Your task to perform on an android device: check android version Image 0: 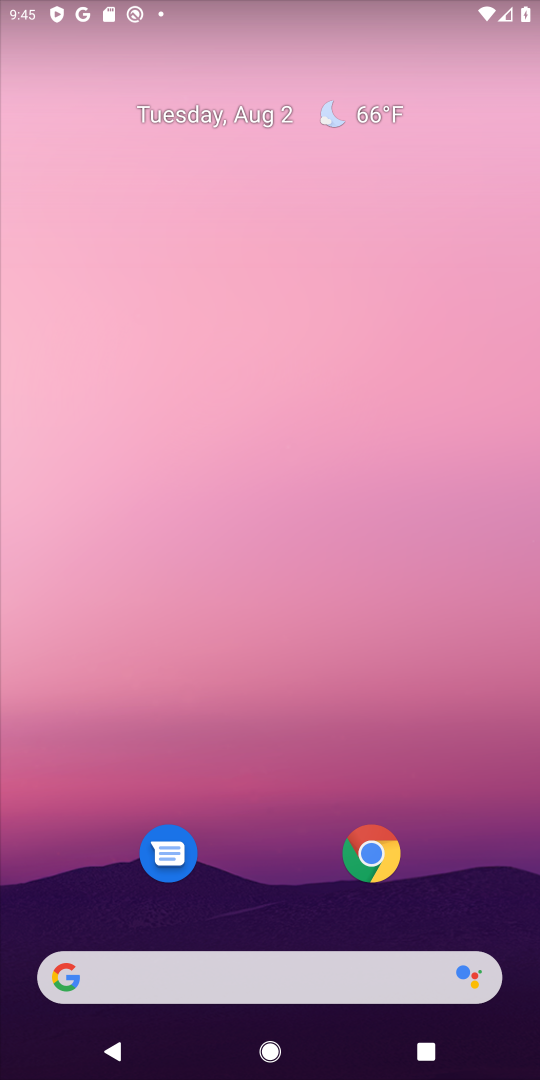
Step 0: drag from (491, 800) to (413, 237)
Your task to perform on an android device: check android version Image 1: 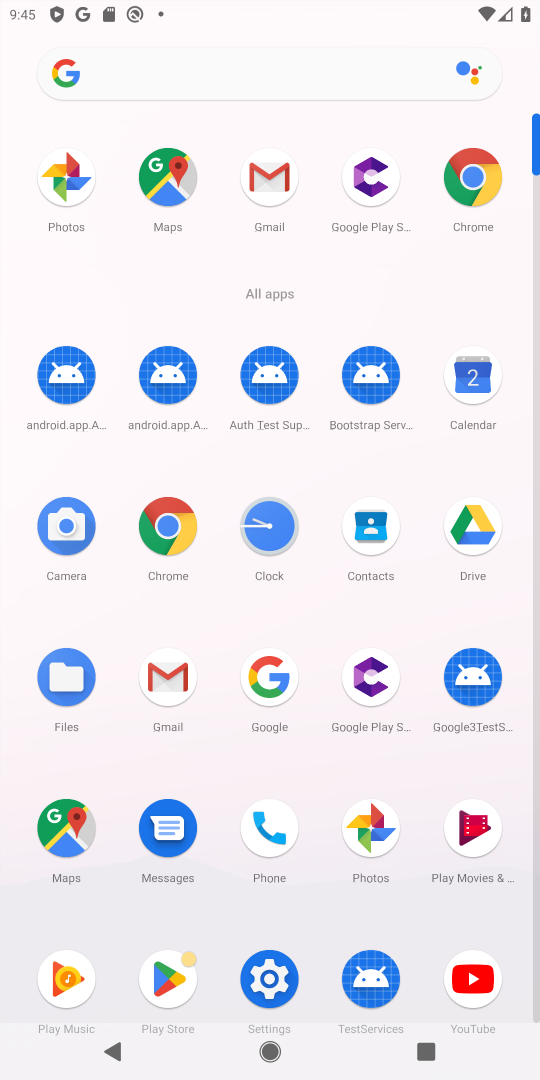
Step 1: click (284, 967)
Your task to perform on an android device: check android version Image 2: 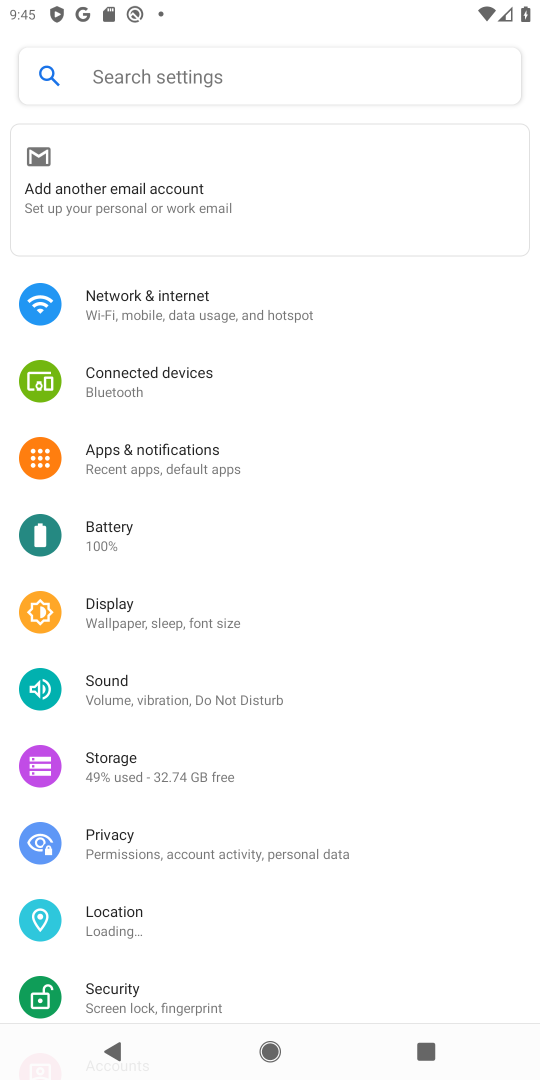
Step 2: drag from (362, 971) to (237, 4)
Your task to perform on an android device: check android version Image 3: 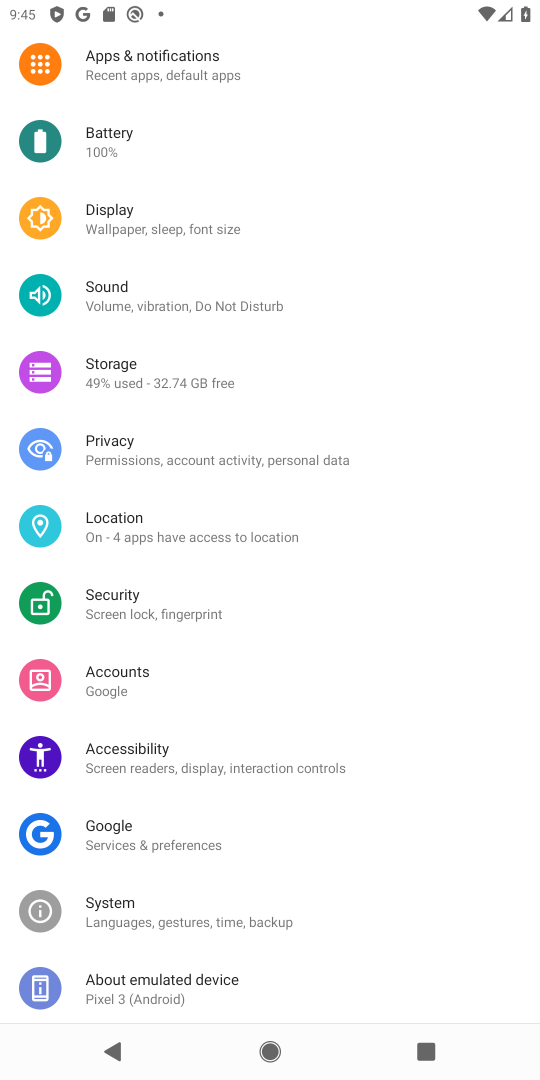
Step 3: click (245, 990)
Your task to perform on an android device: check android version Image 4: 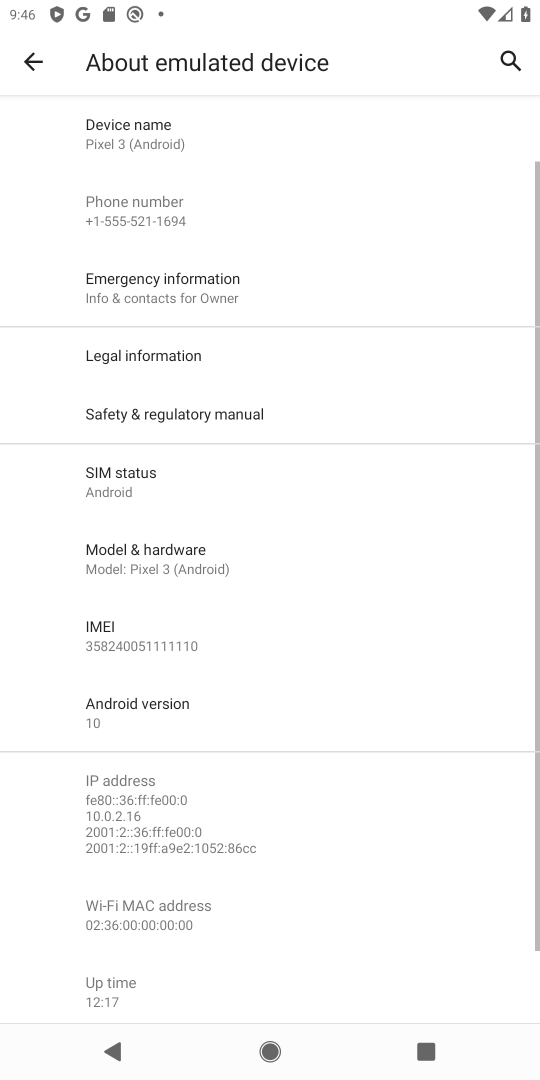
Step 4: click (312, 726)
Your task to perform on an android device: check android version Image 5: 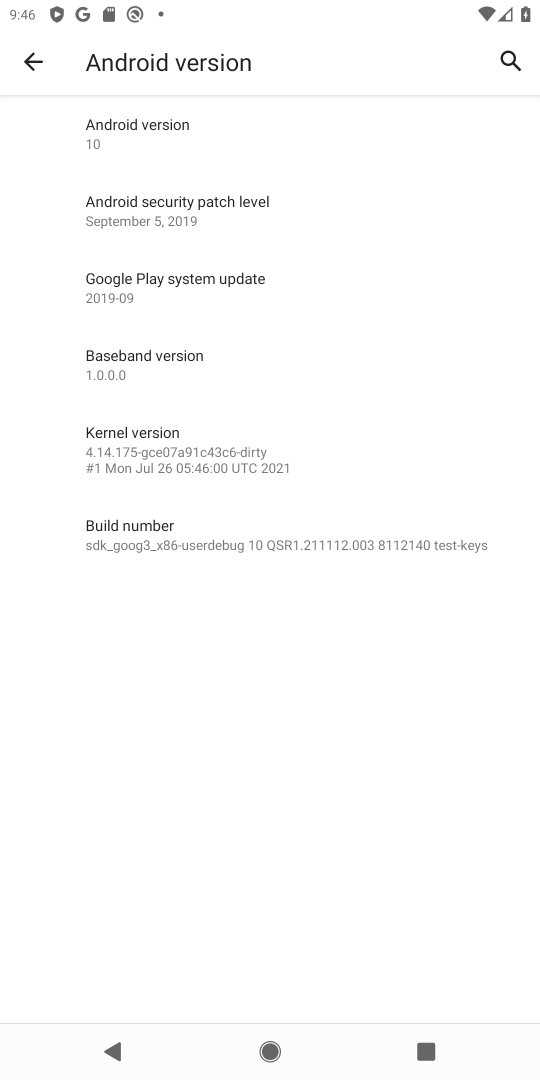
Step 5: task complete